Your task to perform on an android device: Search for vegetarian restaurants on Maps Image 0: 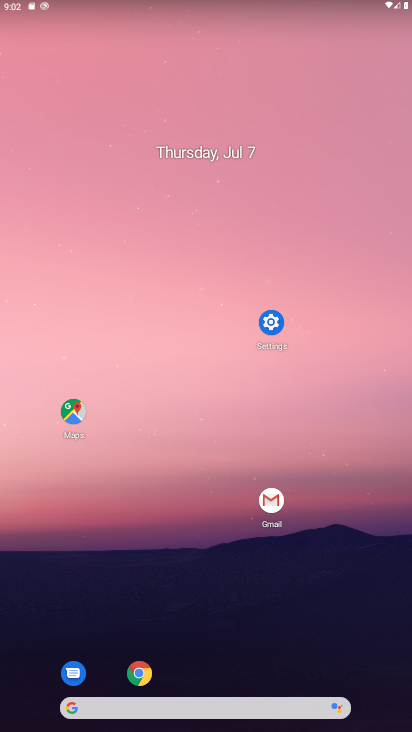
Step 0: click (73, 407)
Your task to perform on an android device: Search for vegetarian restaurants on Maps Image 1: 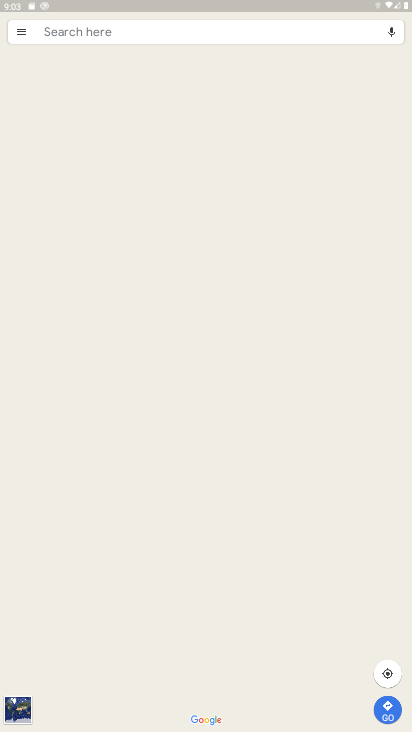
Step 1: click (130, 28)
Your task to perform on an android device: Search for vegetarian restaurants on Maps Image 2: 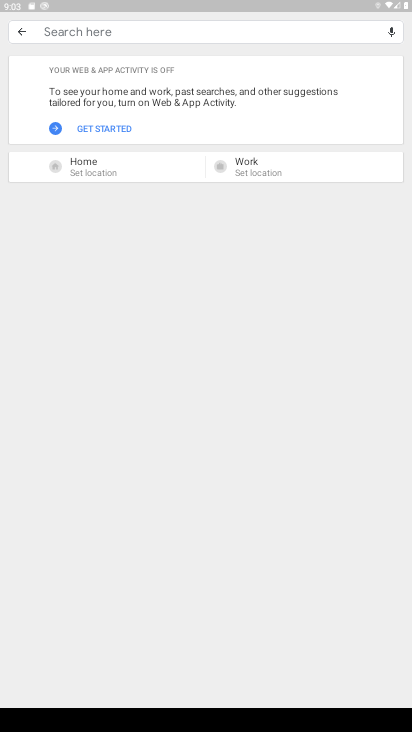
Step 2: type "vegetarian restaurants"
Your task to perform on an android device: Search for vegetarian restaurants on Maps Image 3: 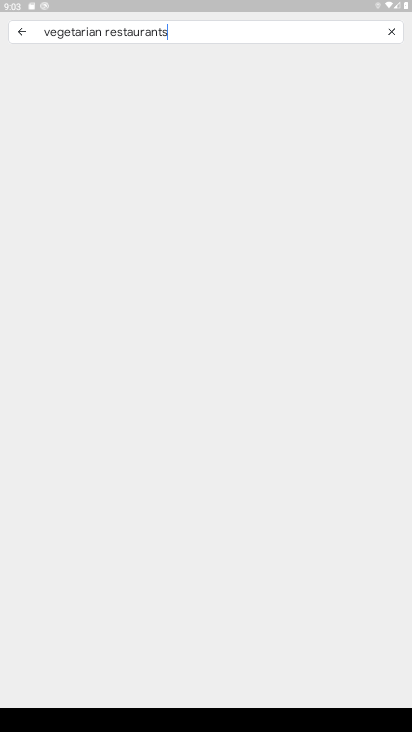
Step 3: task complete